Your task to perform on an android device: Go to internet settings Image 0: 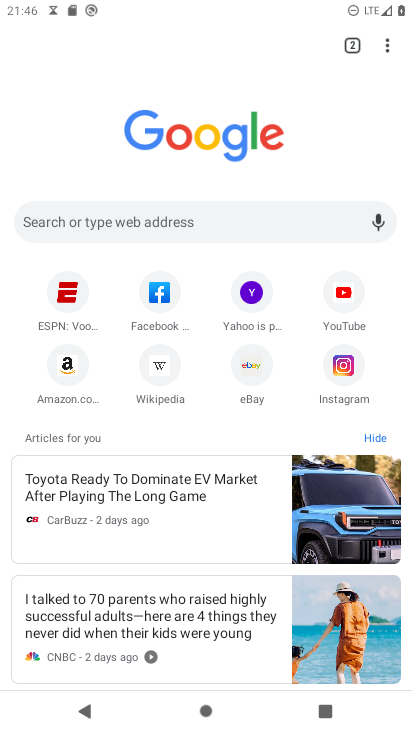
Step 0: press home button
Your task to perform on an android device: Go to internet settings Image 1: 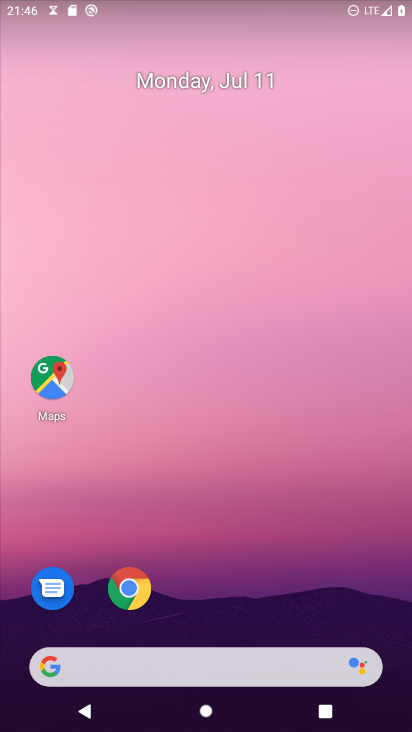
Step 1: drag from (214, 633) to (174, 16)
Your task to perform on an android device: Go to internet settings Image 2: 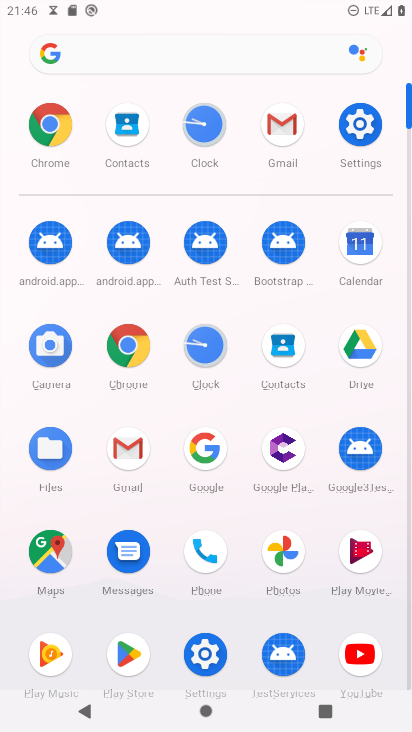
Step 2: click (374, 114)
Your task to perform on an android device: Go to internet settings Image 3: 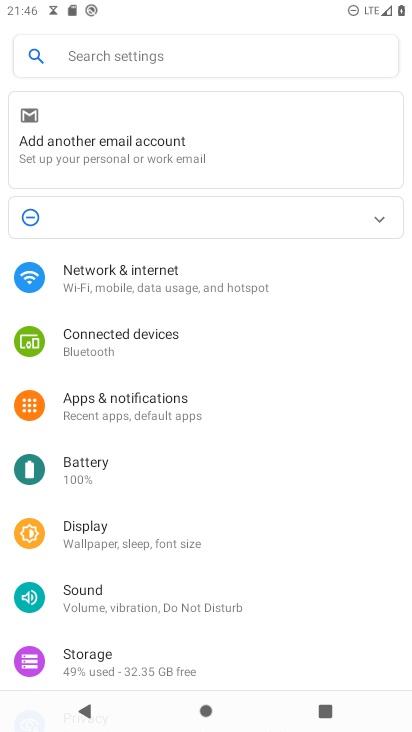
Step 3: click (128, 281)
Your task to perform on an android device: Go to internet settings Image 4: 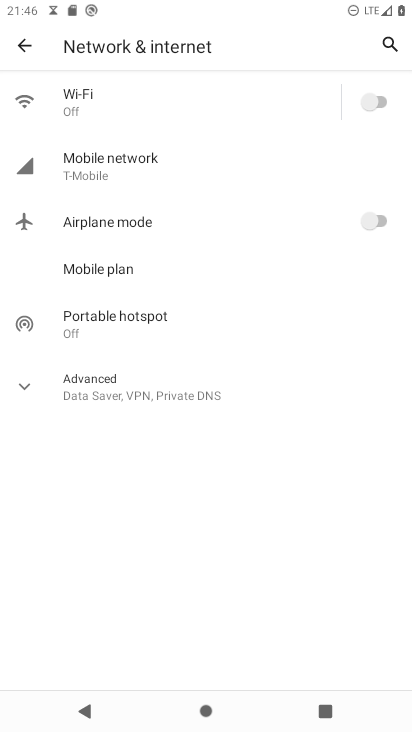
Step 4: task complete